Your task to perform on an android device: empty trash in the gmail app Image 0: 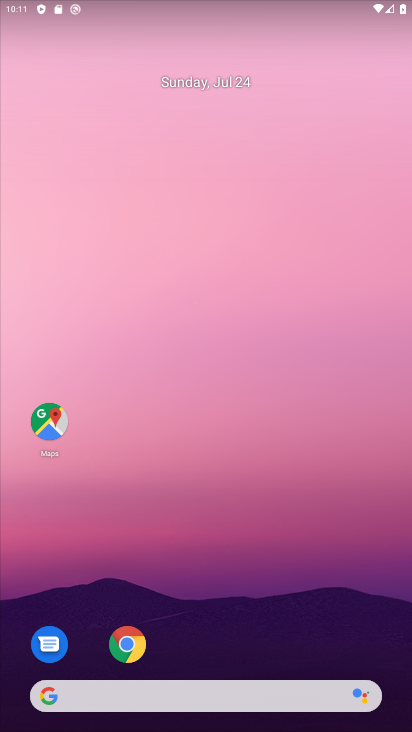
Step 0: drag from (231, 648) to (245, 1)
Your task to perform on an android device: empty trash in the gmail app Image 1: 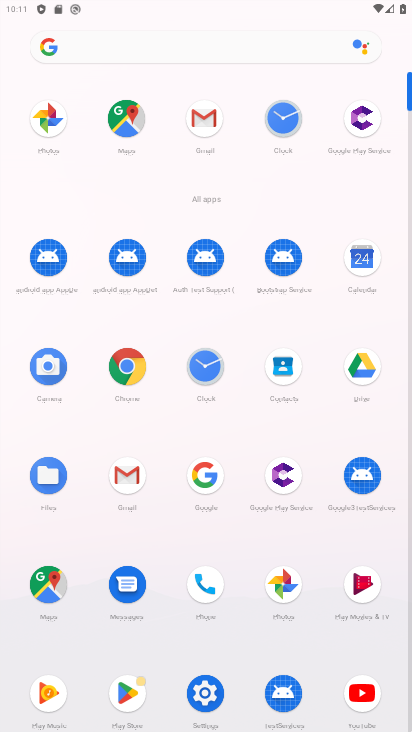
Step 1: click (207, 114)
Your task to perform on an android device: empty trash in the gmail app Image 2: 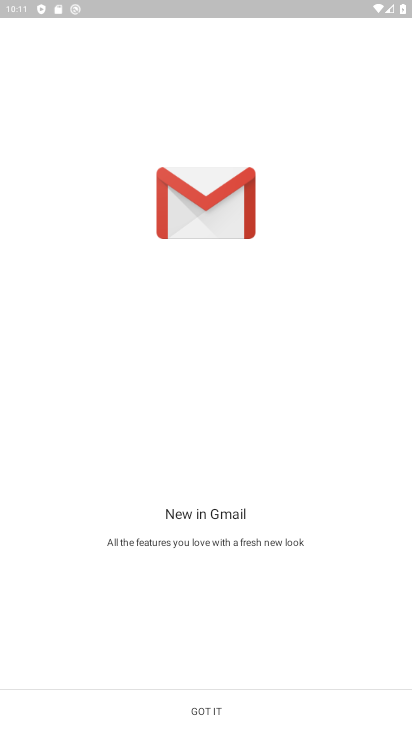
Step 2: click (208, 708)
Your task to perform on an android device: empty trash in the gmail app Image 3: 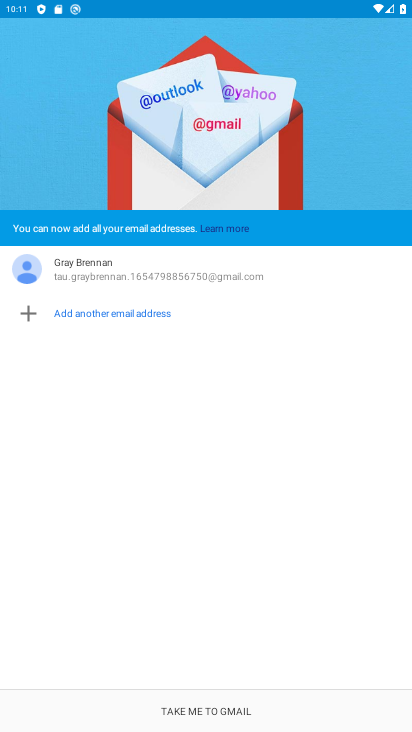
Step 3: click (186, 716)
Your task to perform on an android device: empty trash in the gmail app Image 4: 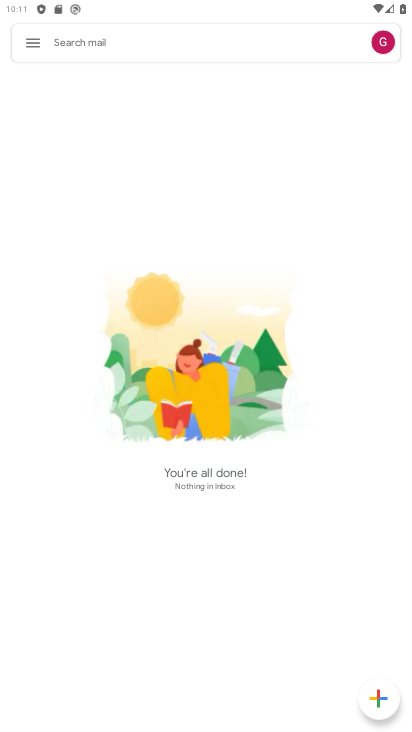
Step 4: click (36, 45)
Your task to perform on an android device: empty trash in the gmail app Image 5: 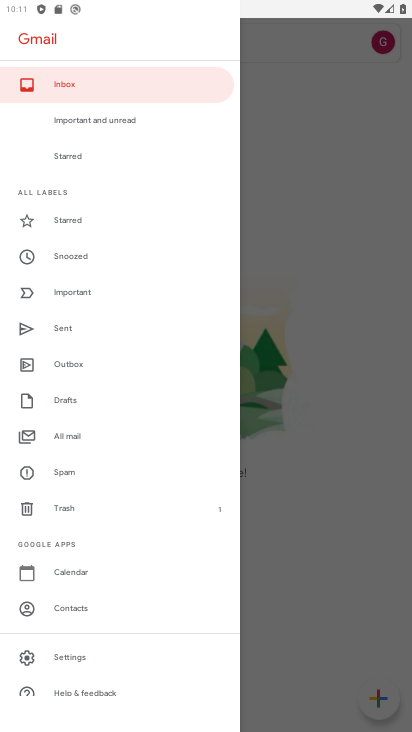
Step 5: click (64, 506)
Your task to perform on an android device: empty trash in the gmail app Image 6: 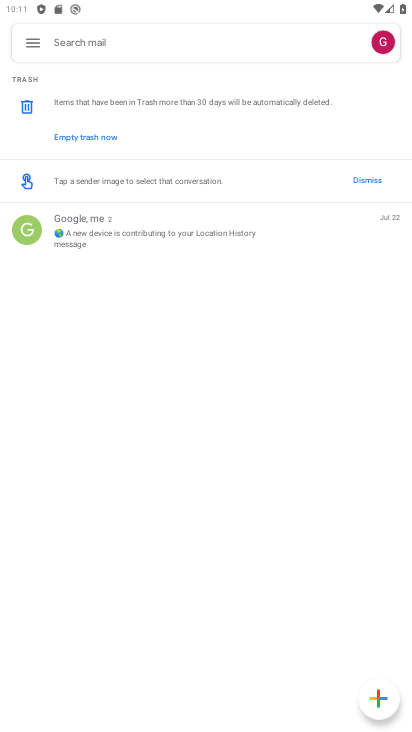
Step 6: click (75, 133)
Your task to perform on an android device: empty trash in the gmail app Image 7: 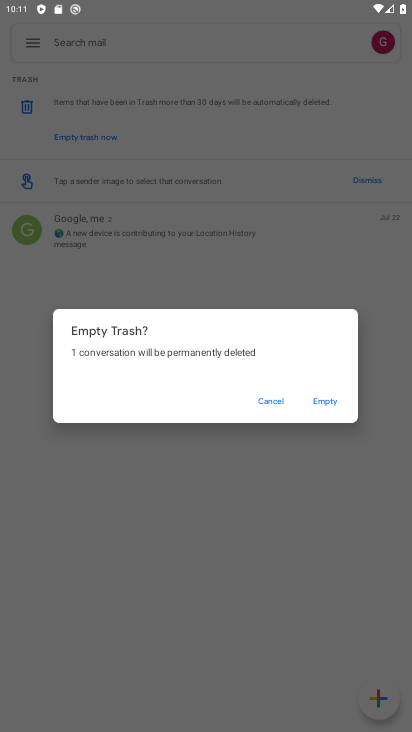
Step 7: click (315, 405)
Your task to perform on an android device: empty trash in the gmail app Image 8: 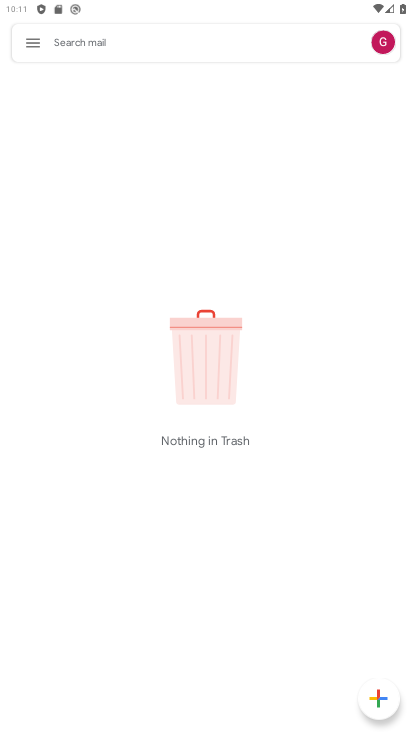
Step 8: task complete